Your task to perform on an android device: Is it going to rain today? Image 0: 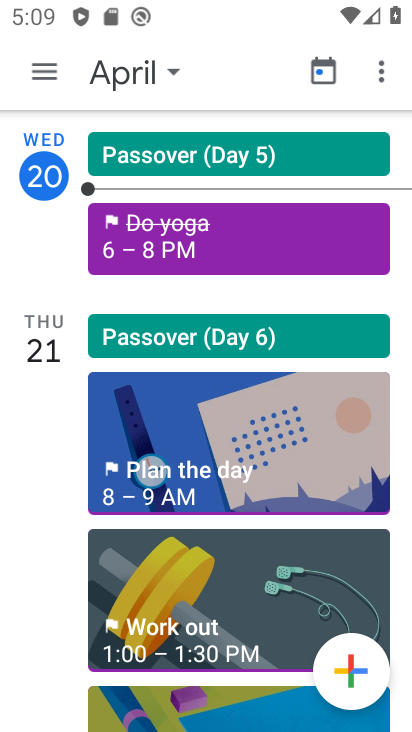
Step 0: press home button
Your task to perform on an android device: Is it going to rain today? Image 1: 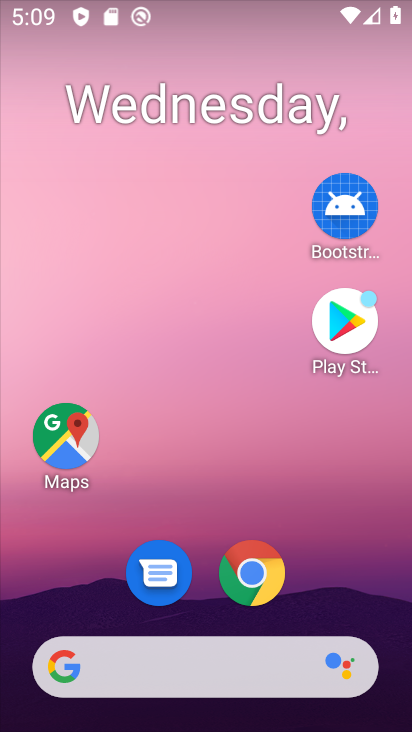
Step 1: type "Is it going to rain today?"
Your task to perform on an android device: Is it going to rain today? Image 2: 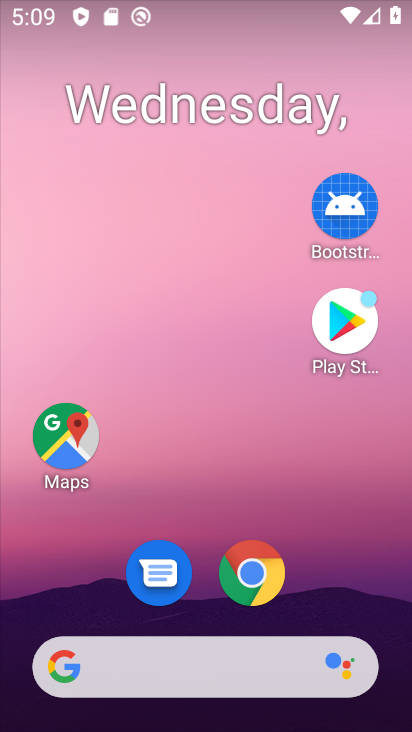
Step 2: click (253, 575)
Your task to perform on an android device: Is it going to rain today? Image 3: 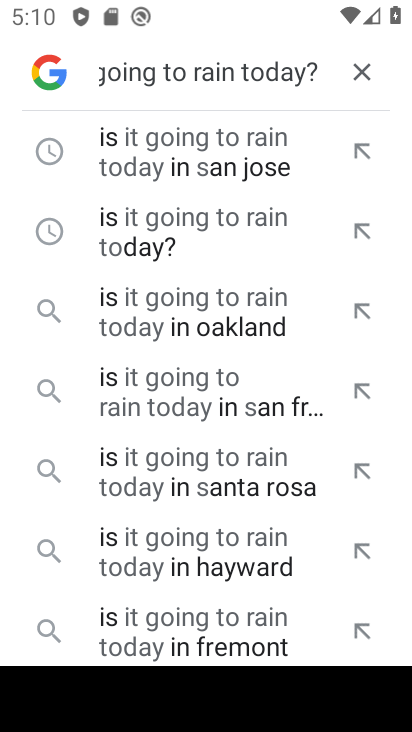
Step 3: click (178, 241)
Your task to perform on an android device: Is it going to rain today? Image 4: 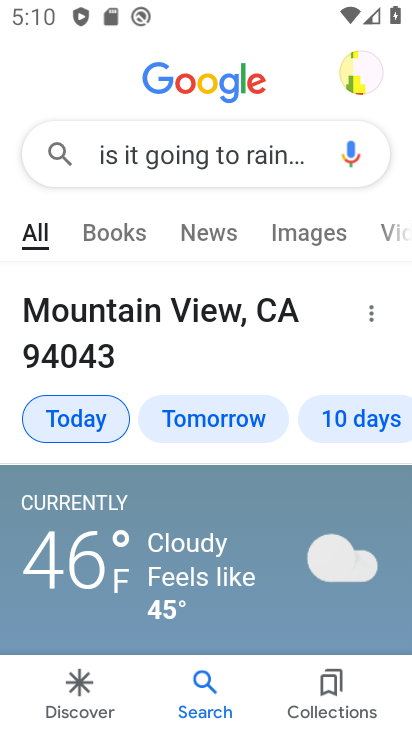
Step 4: task complete